Your task to perform on an android device: Open Chrome and go to settings Image 0: 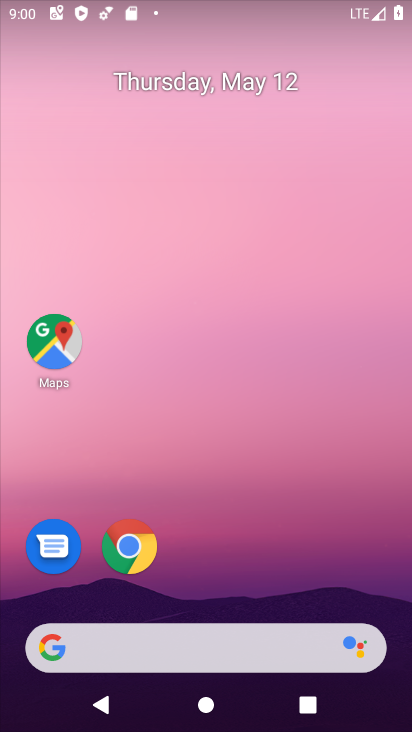
Step 0: click (121, 543)
Your task to perform on an android device: Open Chrome and go to settings Image 1: 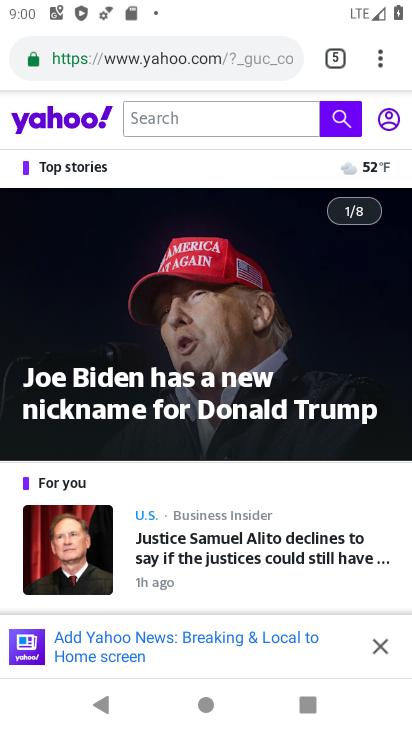
Step 1: click (374, 59)
Your task to perform on an android device: Open Chrome and go to settings Image 2: 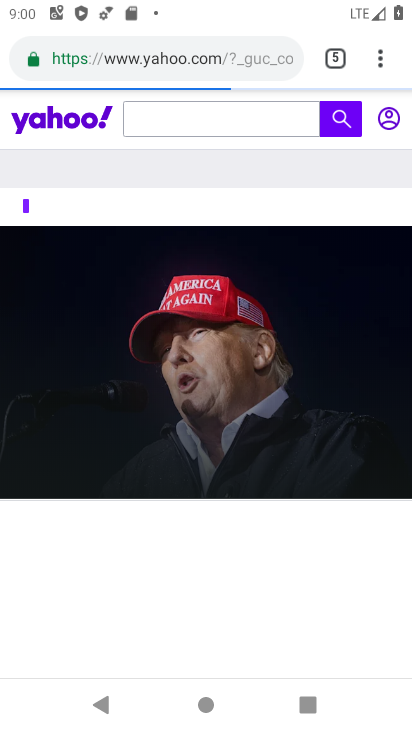
Step 2: task complete